Your task to perform on an android device: change timer sound Image 0: 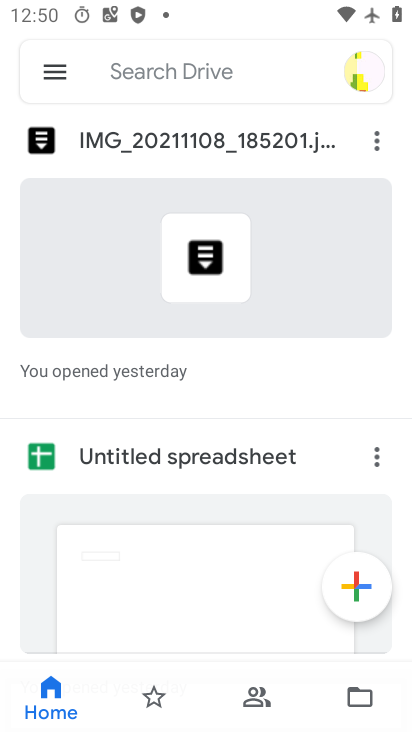
Step 0: press home button
Your task to perform on an android device: change timer sound Image 1: 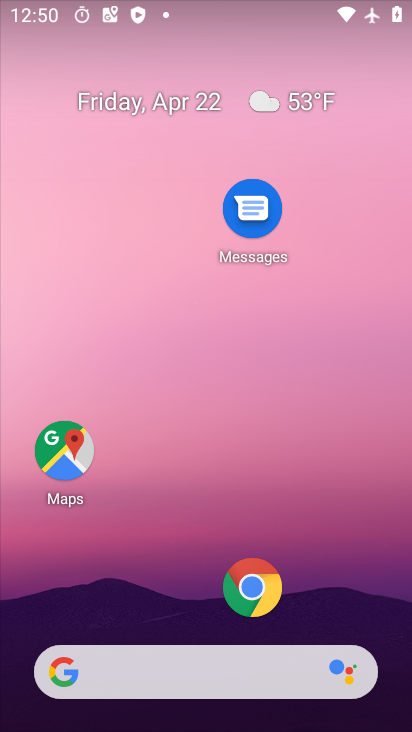
Step 1: drag from (172, 671) to (253, 53)
Your task to perform on an android device: change timer sound Image 2: 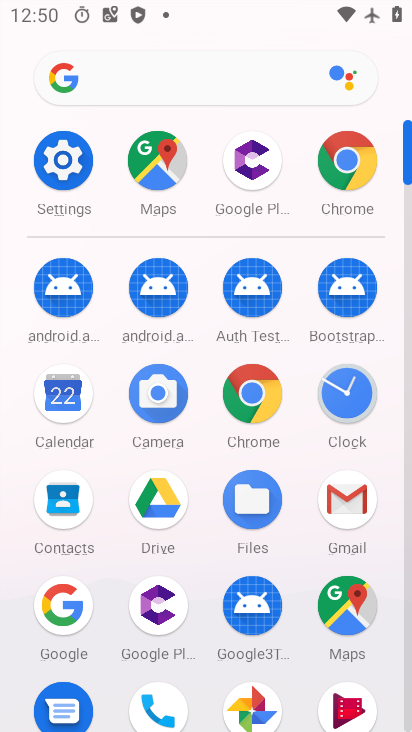
Step 2: click (347, 407)
Your task to perform on an android device: change timer sound Image 3: 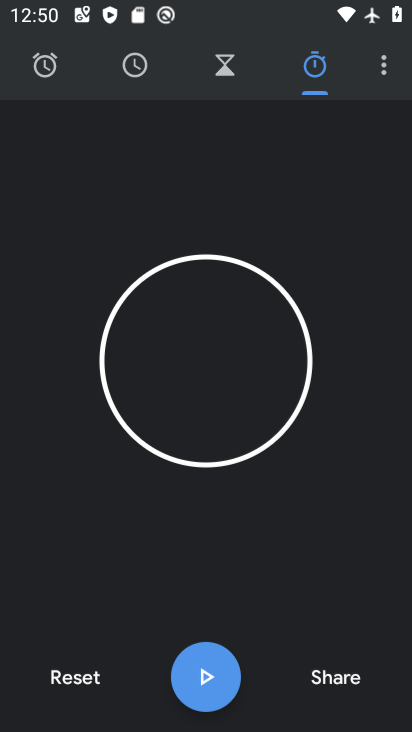
Step 3: click (385, 67)
Your task to perform on an android device: change timer sound Image 4: 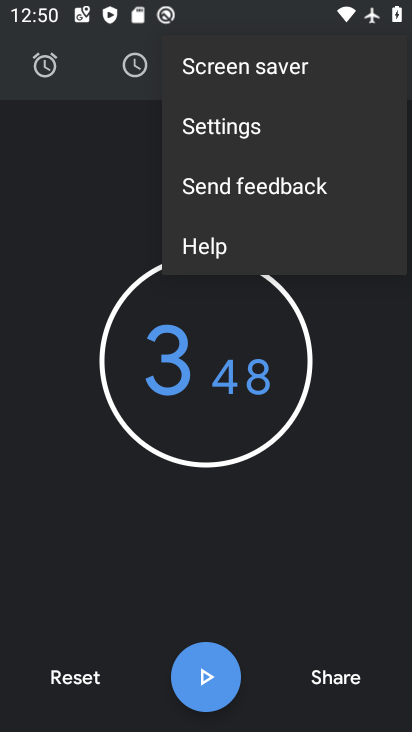
Step 4: click (219, 132)
Your task to perform on an android device: change timer sound Image 5: 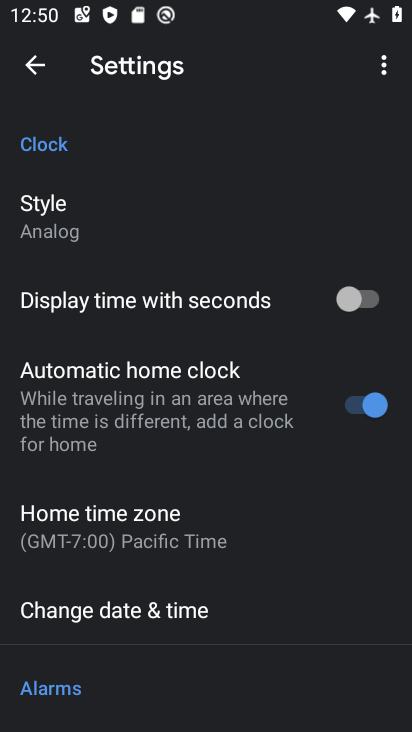
Step 5: drag from (156, 501) to (306, 11)
Your task to perform on an android device: change timer sound Image 6: 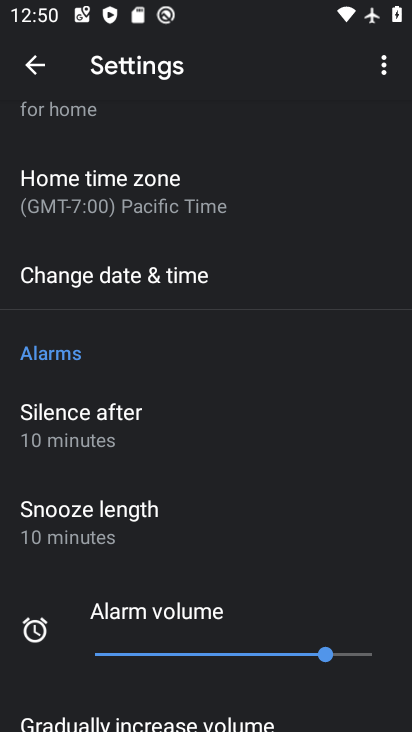
Step 6: drag from (112, 560) to (294, 46)
Your task to perform on an android device: change timer sound Image 7: 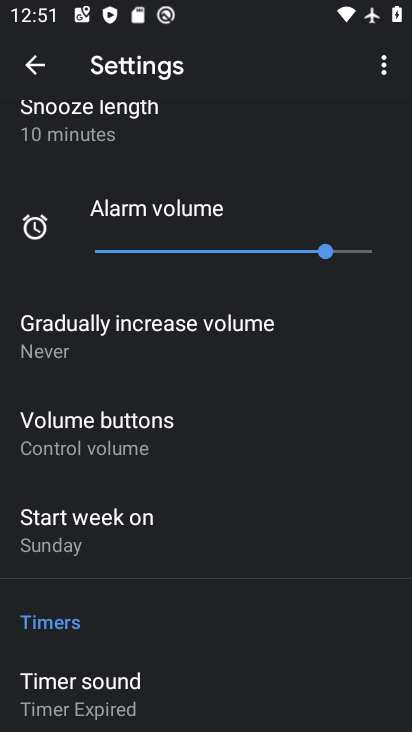
Step 7: click (90, 682)
Your task to perform on an android device: change timer sound Image 8: 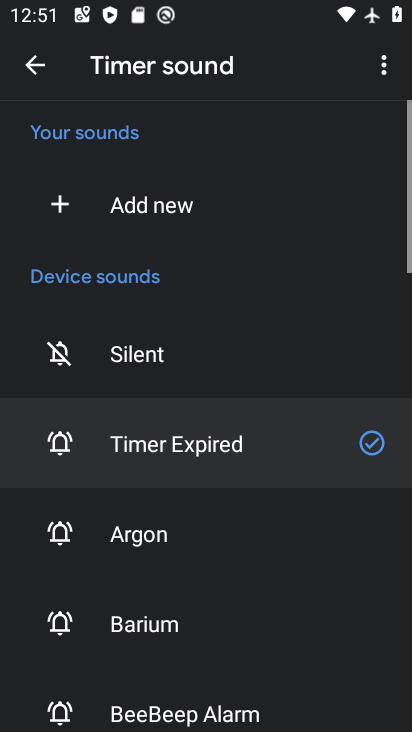
Step 8: click (165, 355)
Your task to perform on an android device: change timer sound Image 9: 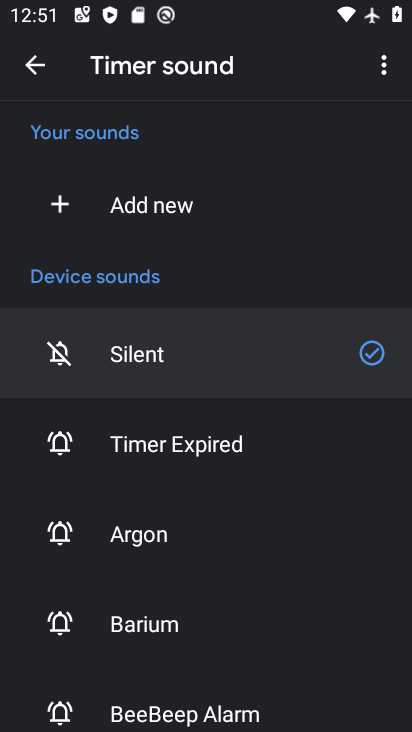
Step 9: task complete